Your task to perform on an android device: set default search engine in the chrome app Image 0: 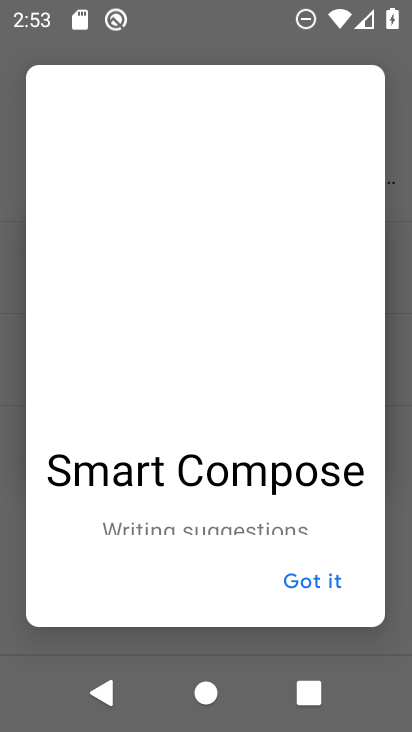
Step 0: press home button
Your task to perform on an android device: set default search engine in the chrome app Image 1: 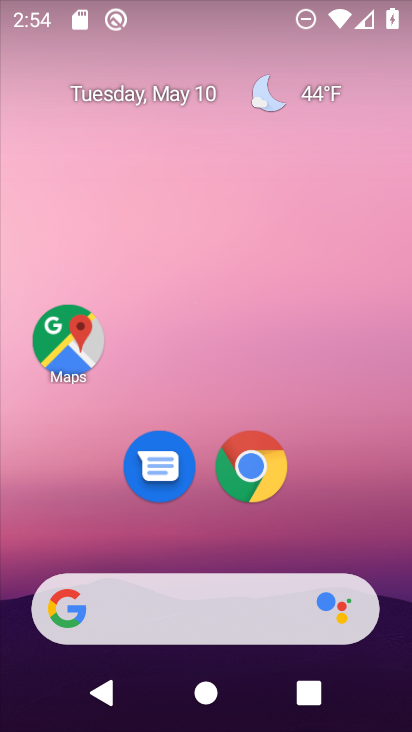
Step 1: click (254, 473)
Your task to perform on an android device: set default search engine in the chrome app Image 2: 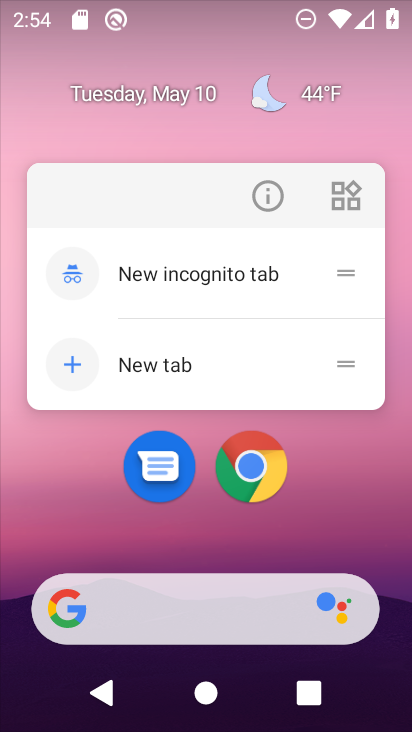
Step 2: click (254, 473)
Your task to perform on an android device: set default search engine in the chrome app Image 3: 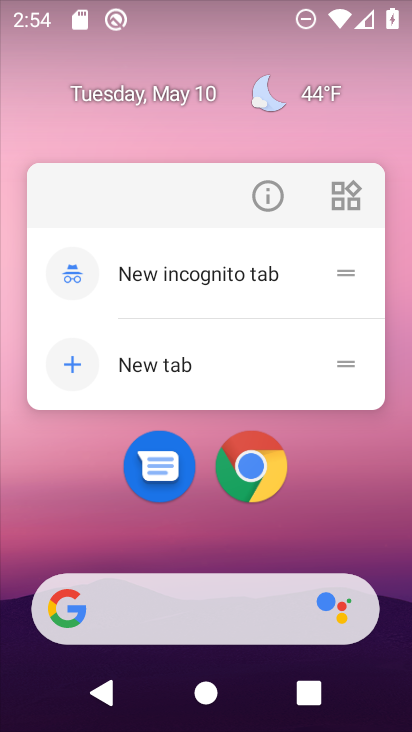
Step 3: click (254, 473)
Your task to perform on an android device: set default search engine in the chrome app Image 4: 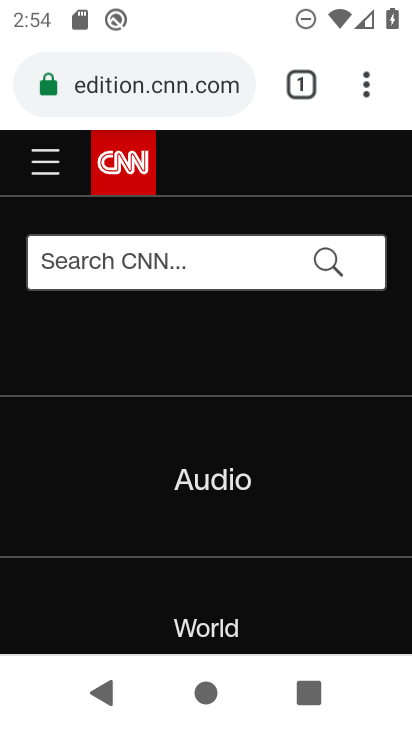
Step 4: click (364, 93)
Your task to perform on an android device: set default search engine in the chrome app Image 5: 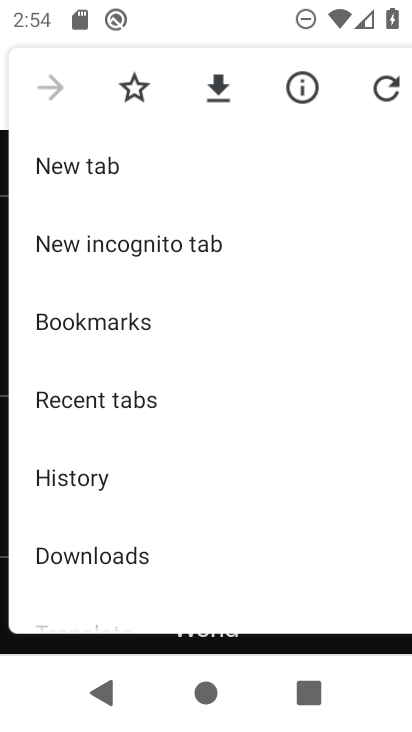
Step 5: drag from (122, 548) to (115, 140)
Your task to perform on an android device: set default search engine in the chrome app Image 6: 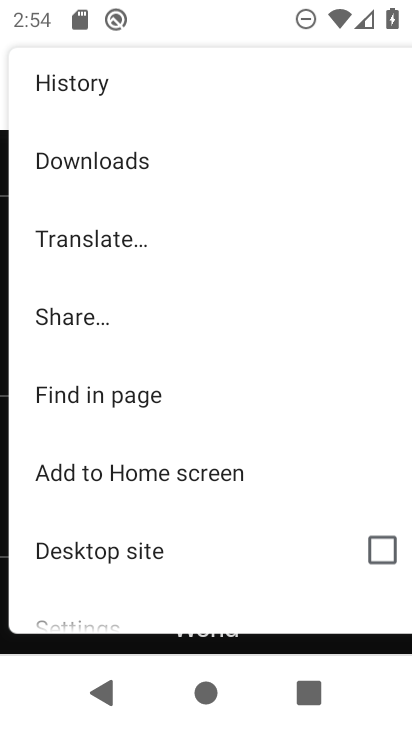
Step 6: drag from (106, 486) to (119, 154)
Your task to perform on an android device: set default search engine in the chrome app Image 7: 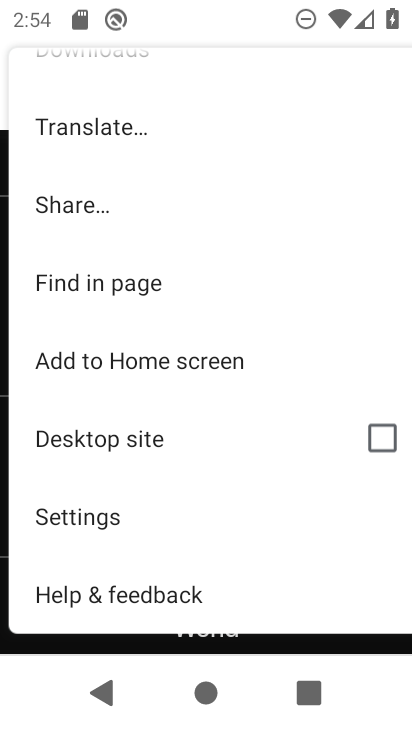
Step 7: click (137, 524)
Your task to perform on an android device: set default search engine in the chrome app Image 8: 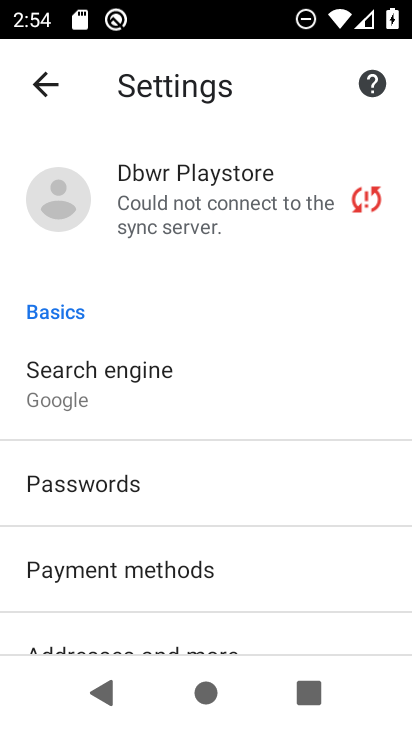
Step 8: click (82, 412)
Your task to perform on an android device: set default search engine in the chrome app Image 9: 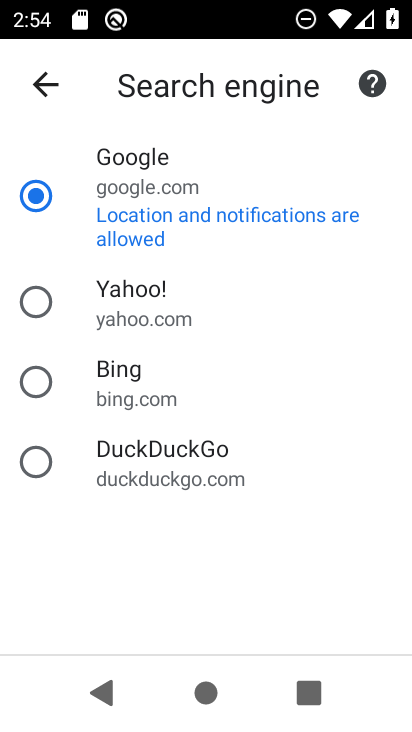
Step 9: click (199, 318)
Your task to perform on an android device: set default search engine in the chrome app Image 10: 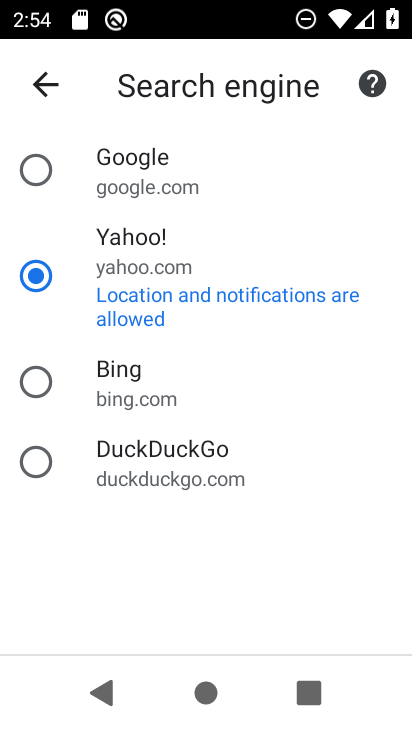
Step 10: task complete